Your task to perform on an android device: Open Chrome and go to the settings page Image 0: 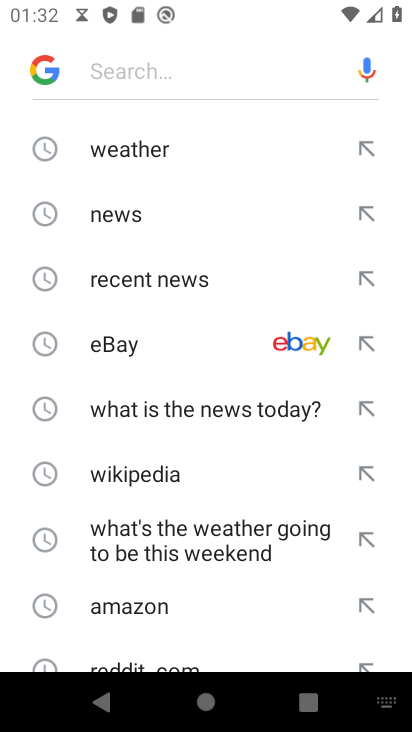
Step 0: press home button
Your task to perform on an android device: Open Chrome and go to the settings page Image 1: 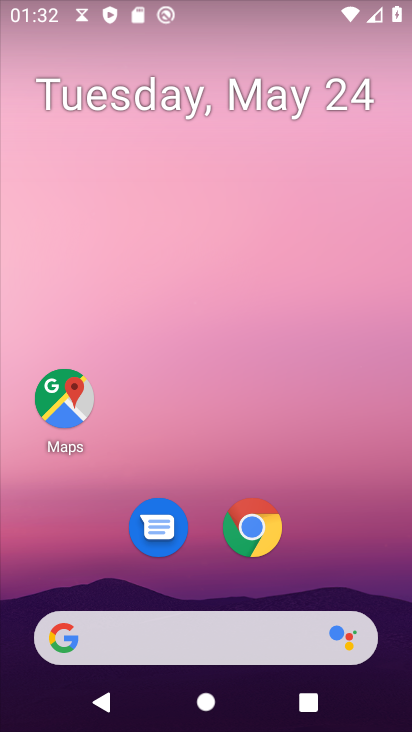
Step 1: click (250, 537)
Your task to perform on an android device: Open Chrome and go to the settings page Image 2: 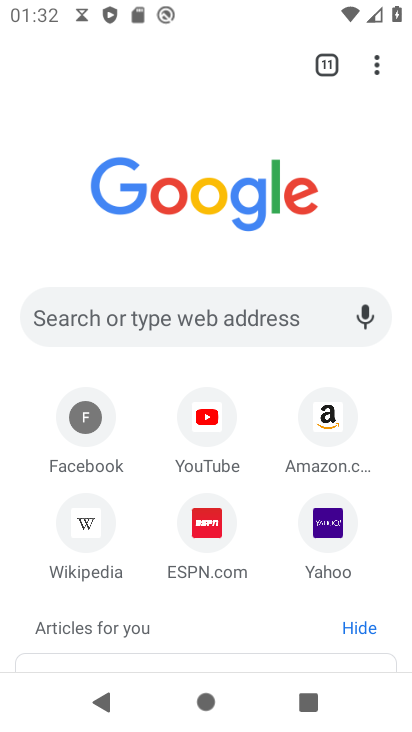
Step 2: task complete